Your task to perform on an android device: open a new tab in the chrome app Image 0: 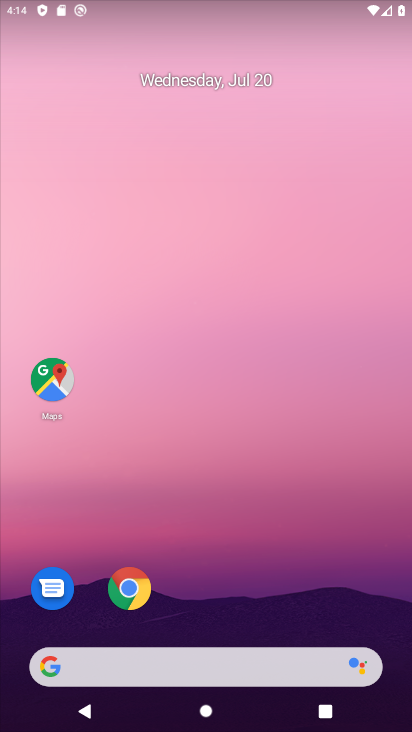
Step 0: press home button
Your task to perform on an android device: open a new tab in the chrome app Image 1: 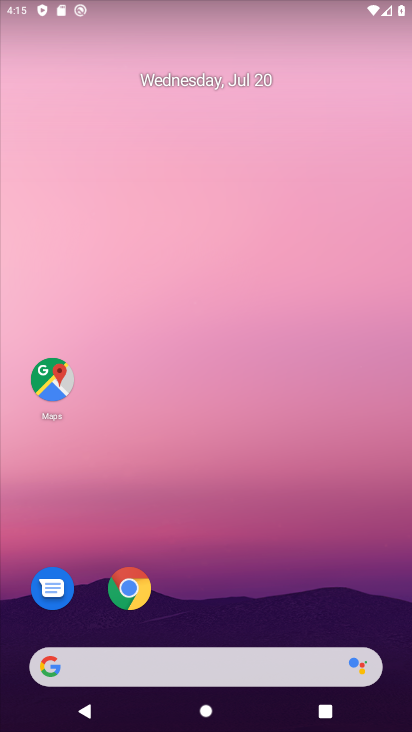
Step 1: click (134, 586)
Your task to perform on an android device: open a new tab in the chrome app Image 2: 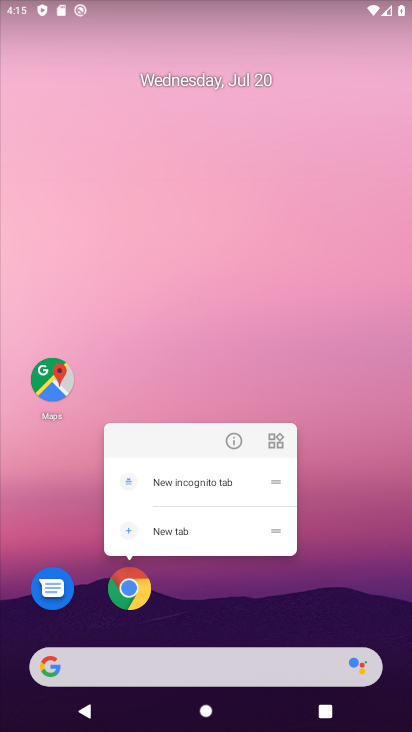
Step 2: click (131, 593)
Your task to perform on an android device: open a new tab in the chrome app Image 3: 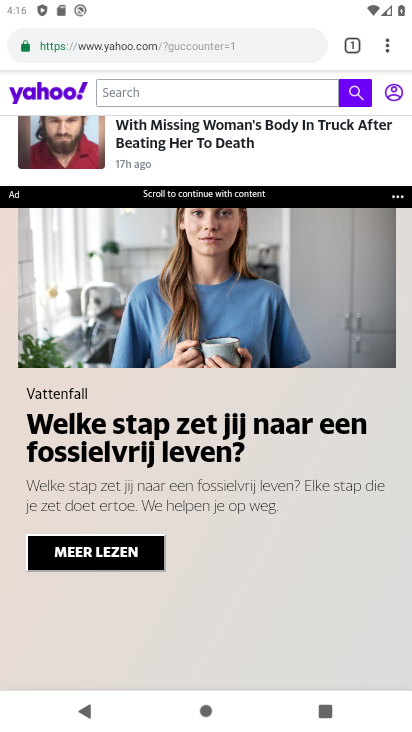
Step 3: click (347, 45)
Your task to perform on an android device: open a new tab in the chrome app Image 4: 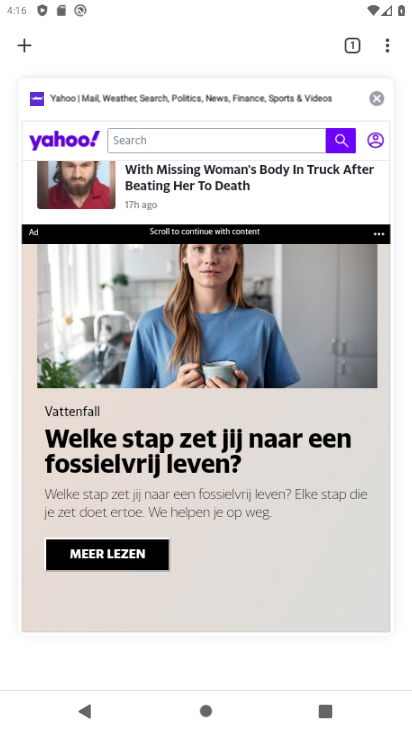
Step 4: click (30, 43)
Your task to perform on an android device: open a new tab in the chrome app Image 5: 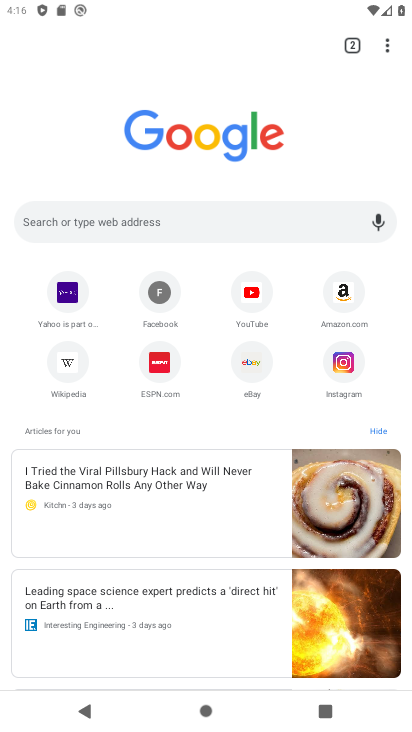
Step 5: task complete